Your task to perform on an android device: turn vacation reply on in the gmail app Image 0: 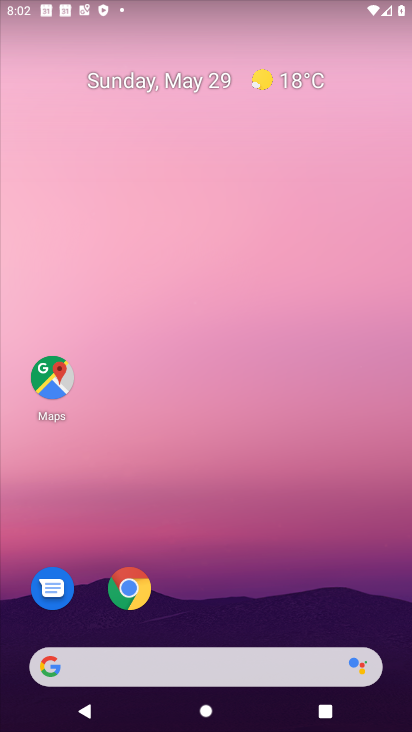
Step 0: drag from (234, 569) to (278, 127)
Your task to perform on an android device: turn vacation reply on in the gmail app Image 1: 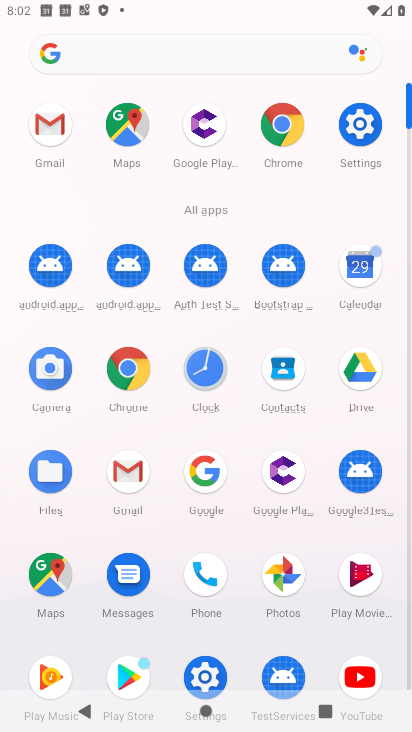
Step 1: click (45, 137)
Your task to perform on an android device: turn vacation reply on in the gmail app Image 2: 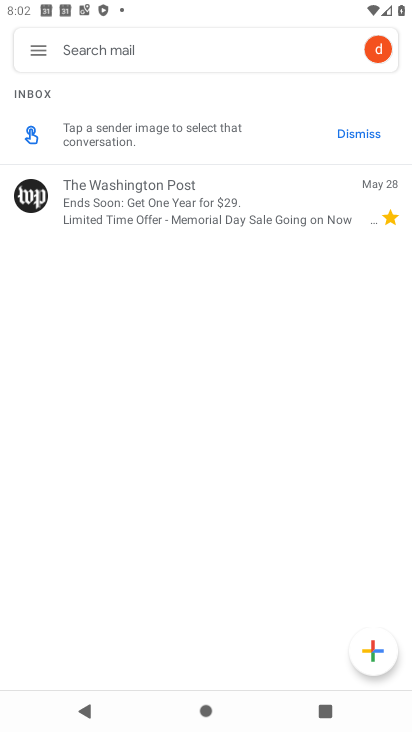
Step 2: click (46, 53)
Your task to perform on an android device: turn vacation reply on in the gmail app Image 3: 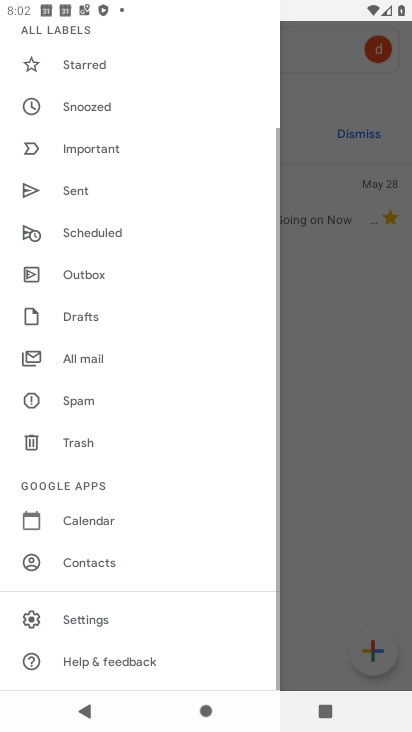
Step 3: drag from (151, 561) to (151, 304)
Your task to perform on an android device: turn vacation reply on in the gmail app Image 4: 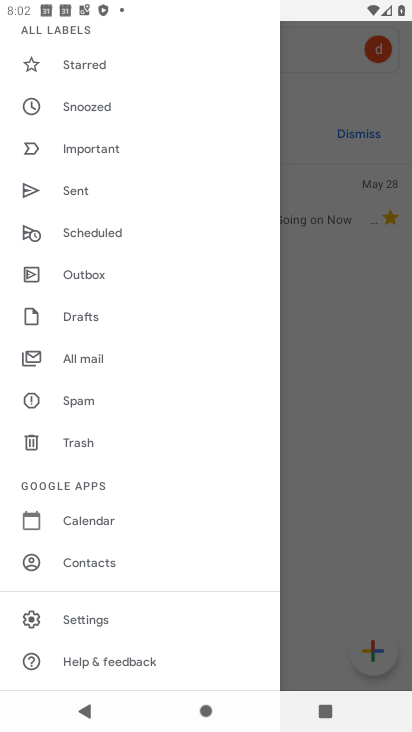
Step 4: click (74, 628)
Your task to perform on an android device: turn vacation reply on in the gmail app Image 5: 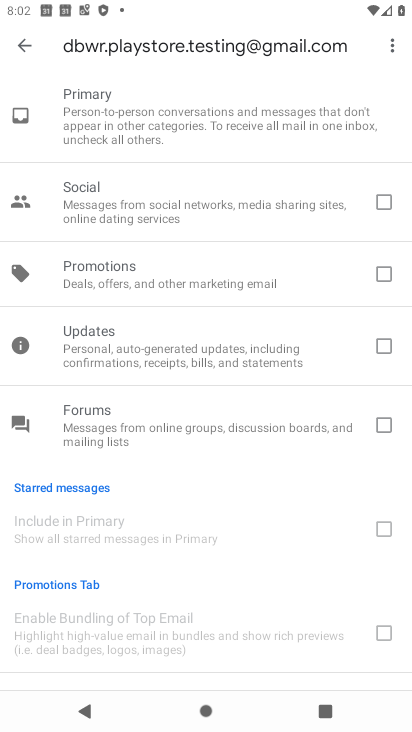
Step 5: drag from (167, 610) to (206, 220)
Your task to perform on an android device: turn vacation reply on in the gmail app Image 6: 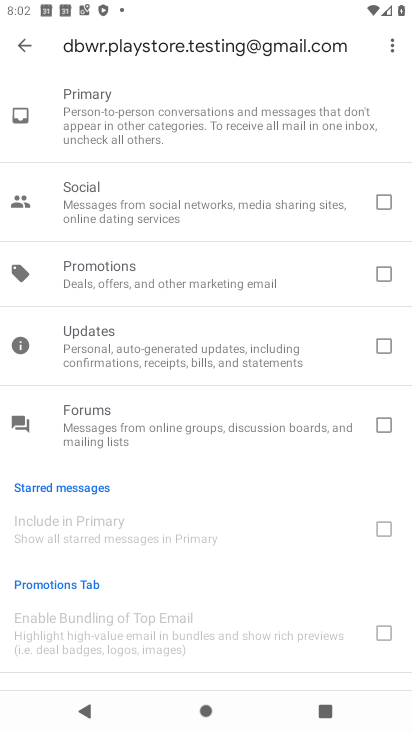
Step 6: press back button
Your task to perform on an android device: turn vacation reply on in the gmail app Image 7: 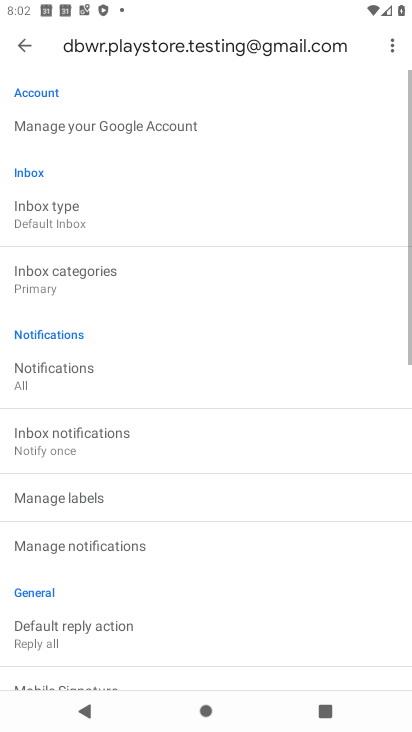
Step 7: drag from (181, 560) to (226, 66)
Your task to perform on an android device: turn vacation reply on in the gmail app Image 8: 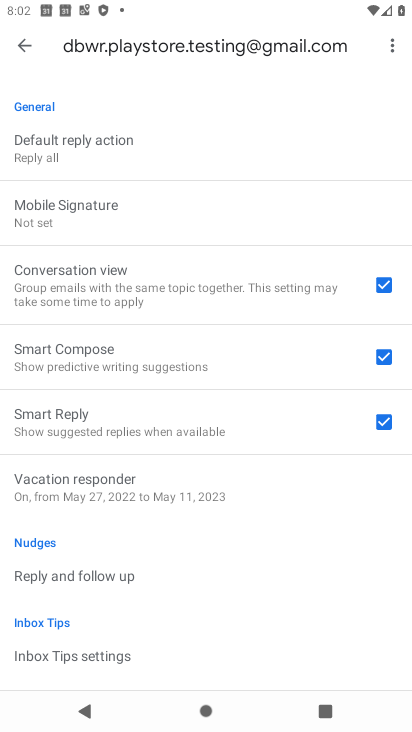
Step 8: drag from (126, 591) to (133, 381)
Your task to perform on an android device: turn vacation reply on in the gmail app Image 9: 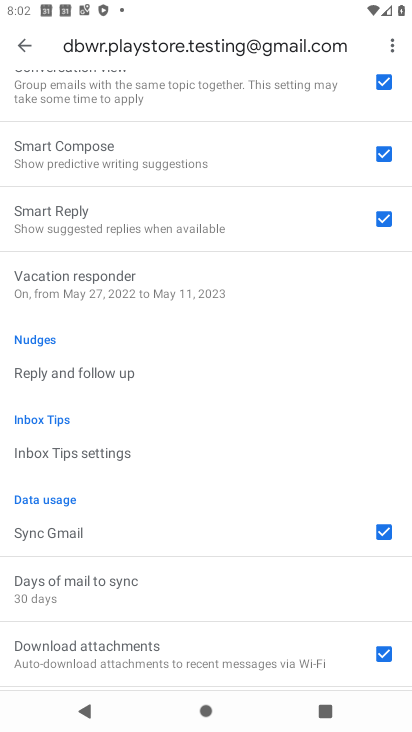
Step 9: click (122, 259)
Your task to perform on an android device: turn vacation reply on in the gmail app Image 10: 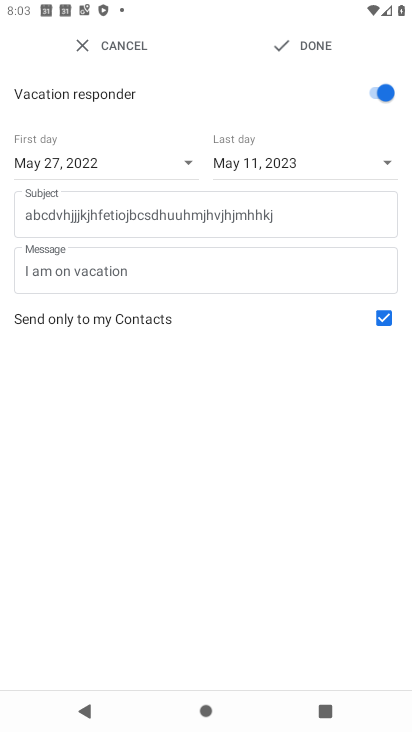
Step 10: task complete